Your task to perform on an android device: turn on bluetooth scan Image 0: 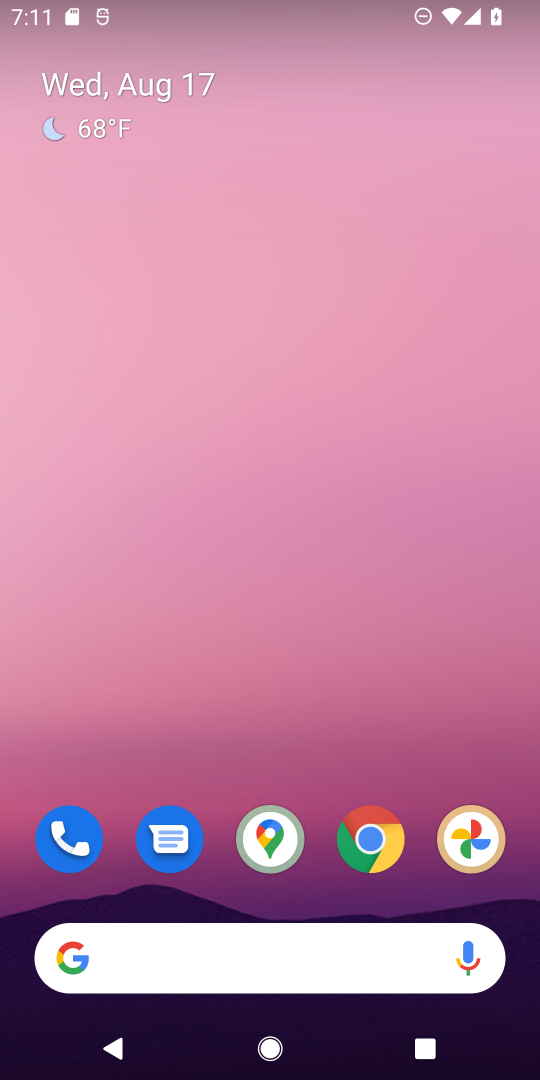
Step 0: click (400, 907)
Your task to perform on an android device: turn on bluetooth scan Image 1: 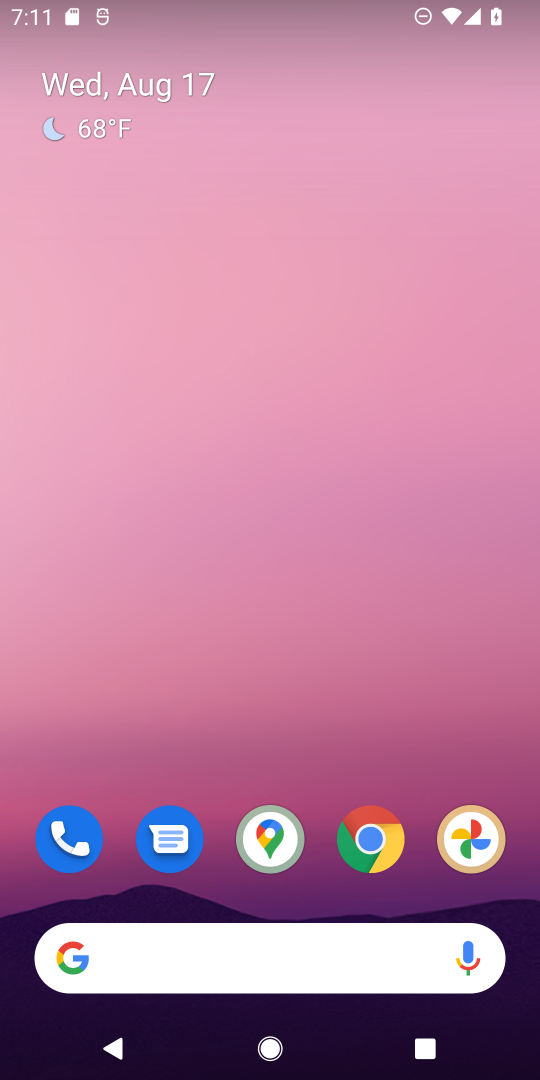
Step 1: drag from (400, 907) to (250, 255)
Your task to perform on an android device: turn on bluetooth scan Image 2: 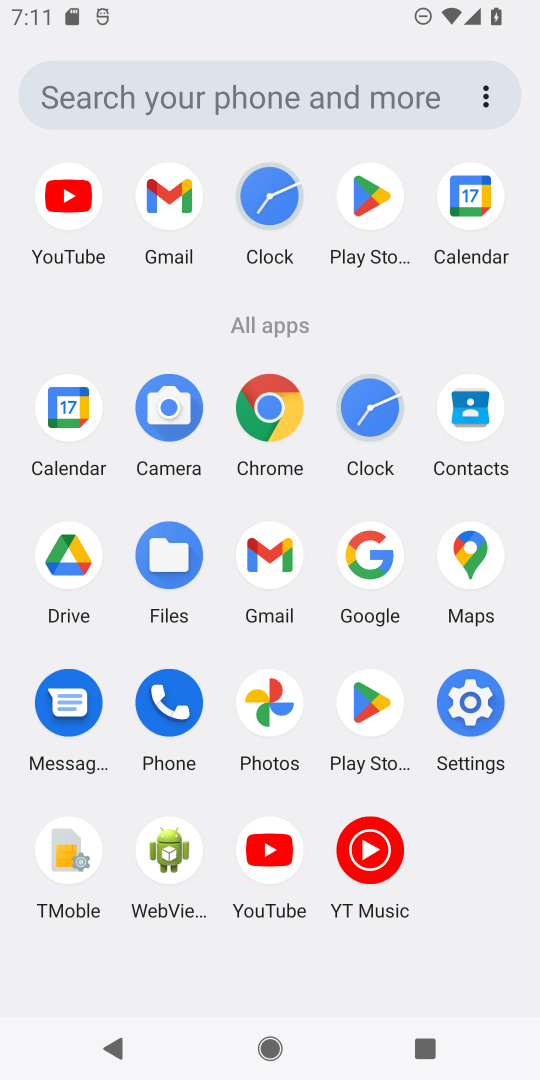
Step 2: click (487, 722)
Your task to perform on an android device: turn on bluetooth scan Image 3: 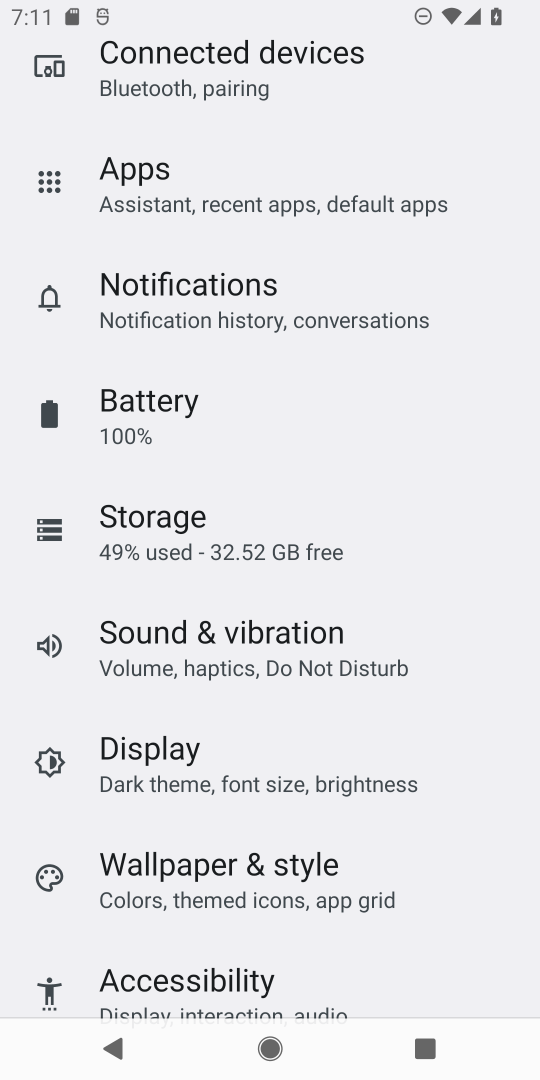
Step 3: drag from (272, 322) to (233, 730)
Your task to perform on an android device: turn on bluetooth scan Image 4: 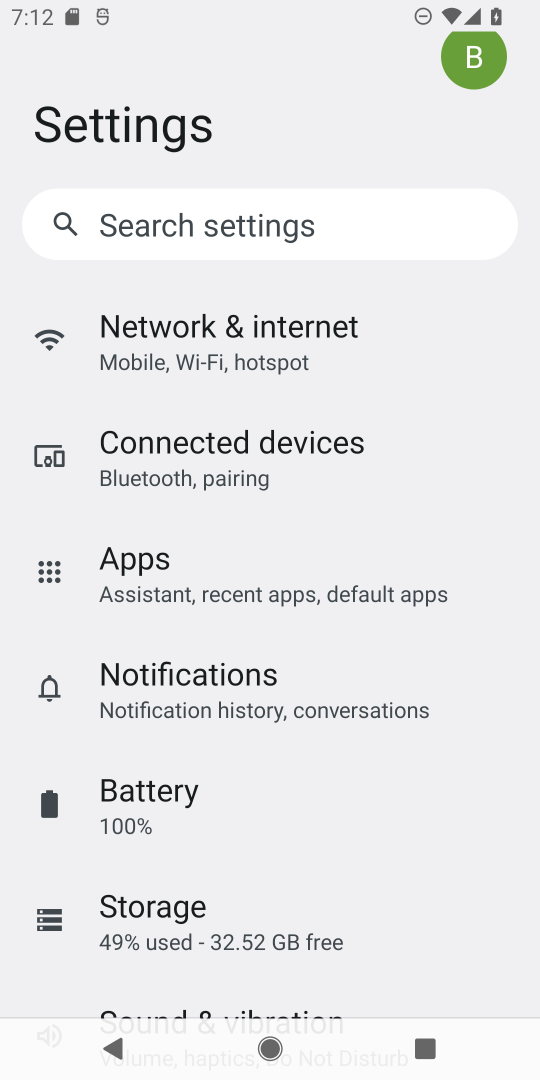
Step 4: drag from (289, 932) to (223, 303)
Your task to perform on an android device: turn on bluetooth scan Image 5: 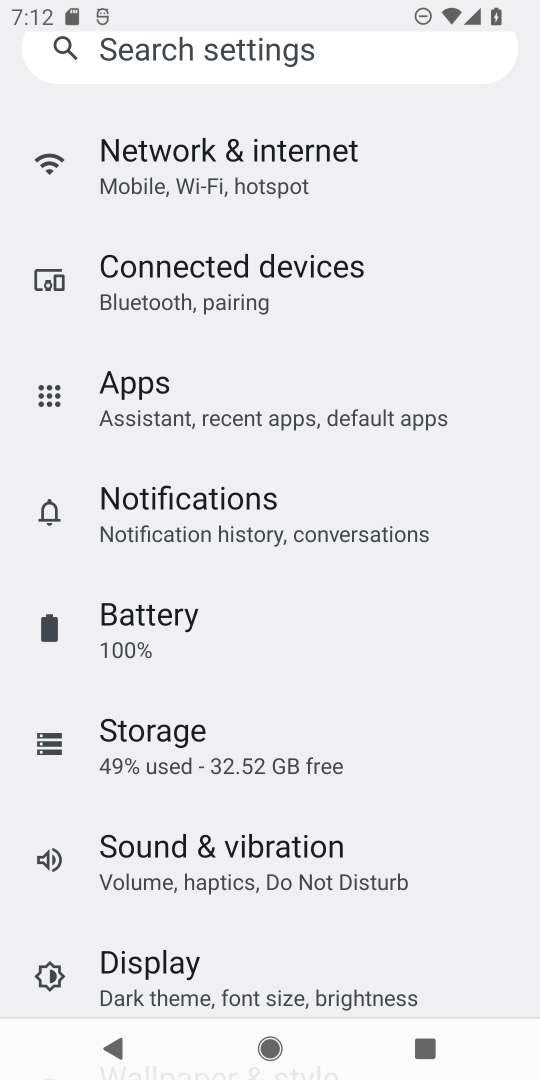
Step 5: drag from (273, 763) to (262, 0)
Your task to perform on an android device: turn on bluetooth scan Image 6: 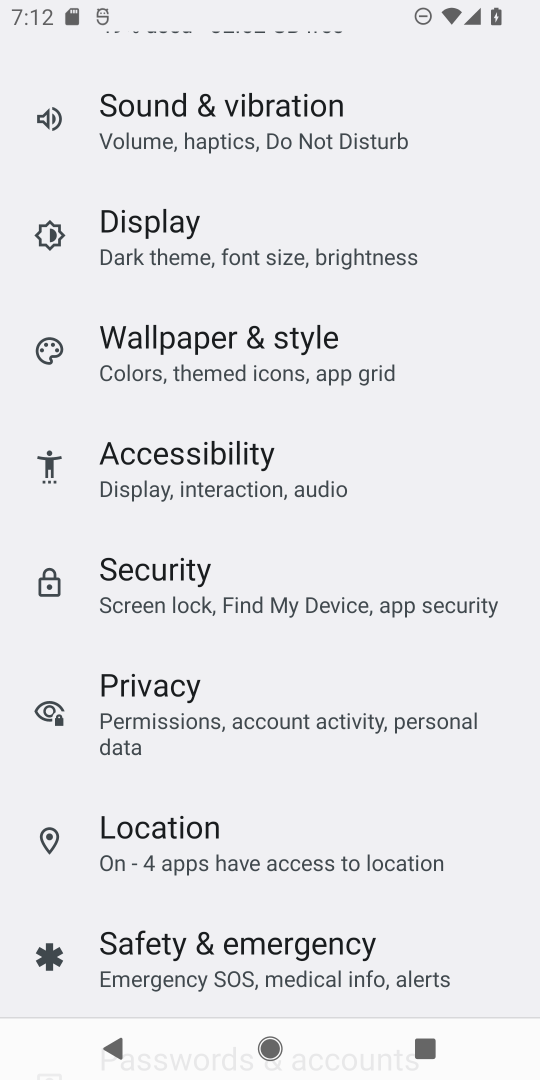
Step 6: click (197, 809)
Your task to perform on an android device: turn on bluetooth scan Image 7: 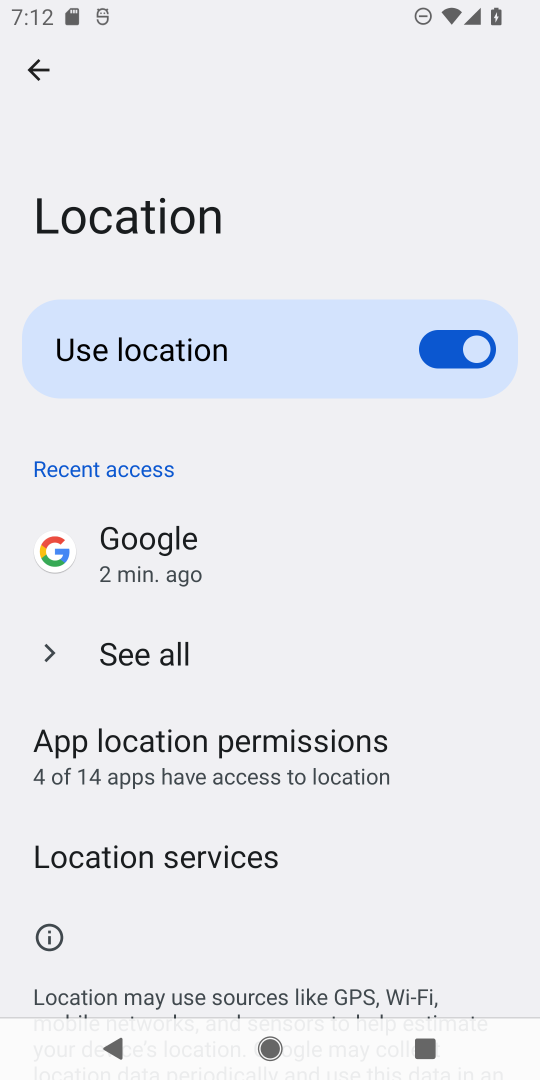
Step 7: drag from (197, 809) to (121, 334)
Your task to perform on an android device: turn on bluetooth scan Image 8: 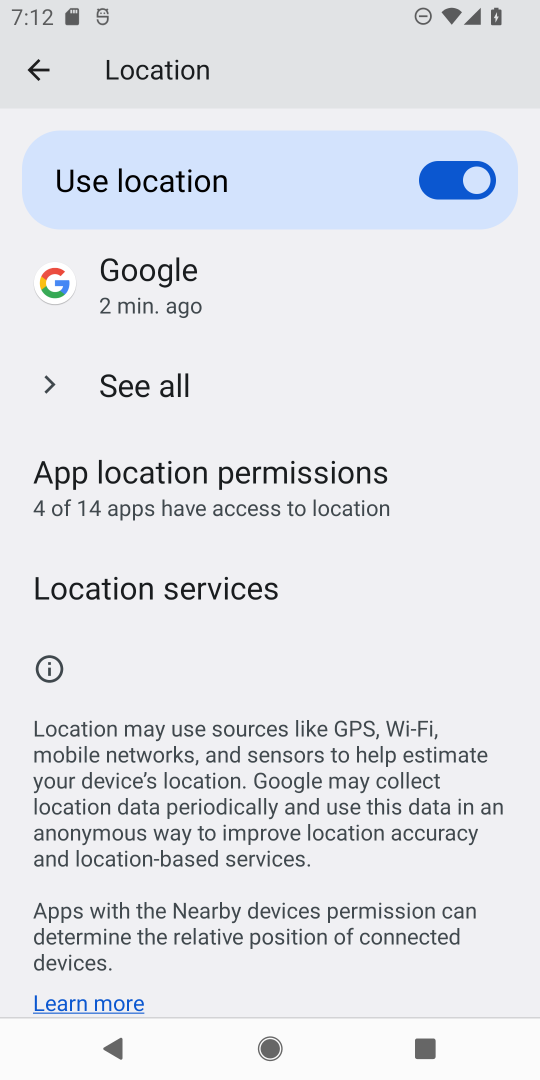
Step 8: click (137, 575)
Your task to perform on an android device: turn on bluetooth scan Image 9: 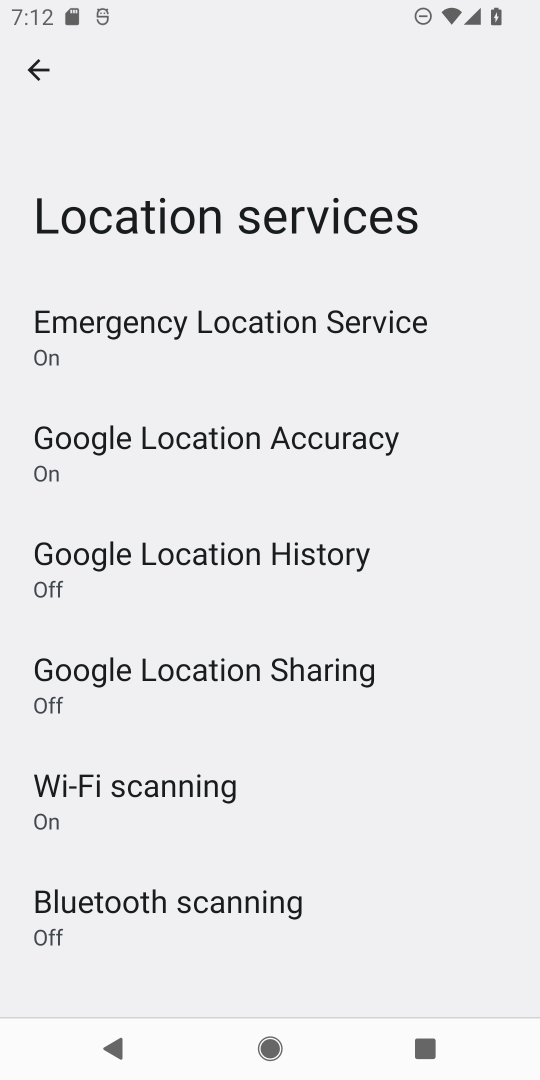
Step 9: click (120, 893)
Your task to perform on an android device: turn on bluetooth scan Image 10: 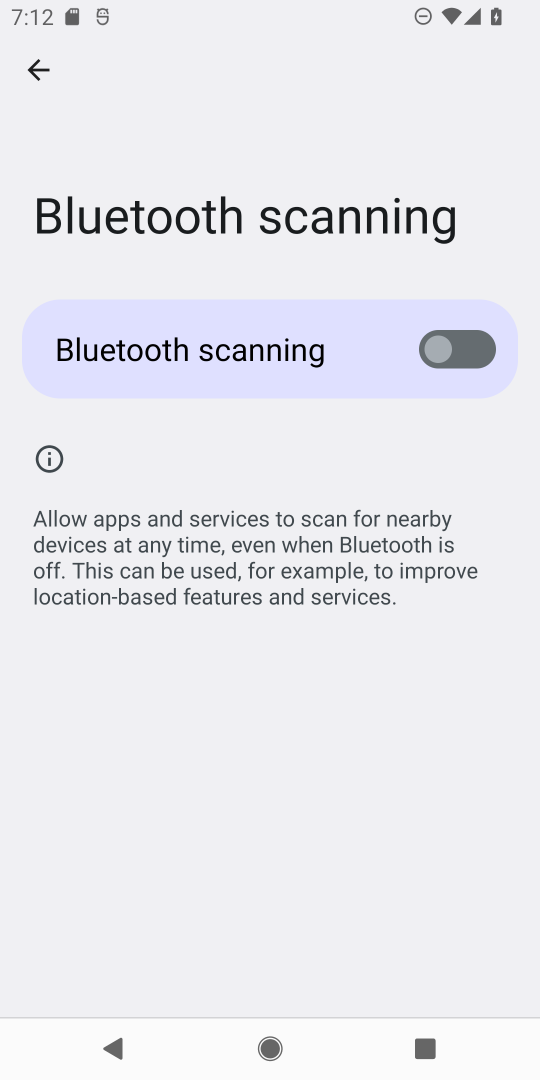
Step 10: click (439, 333)
Your task to perform on an android device: turn on bluetooth scan Image 11: 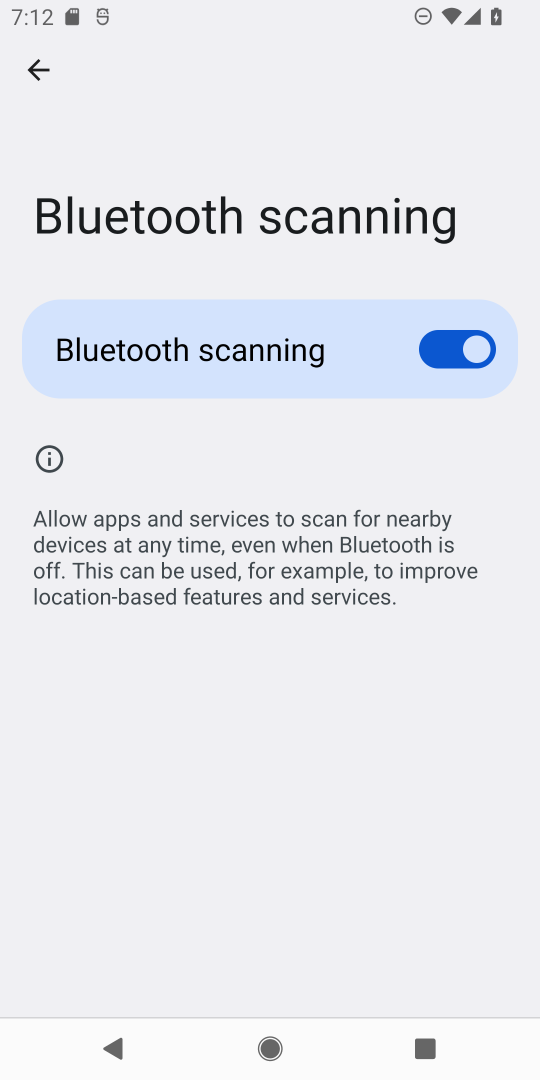
Step 11: task complete